Your task to perform on an android device: delete browsing data in the chrome app Image 0: 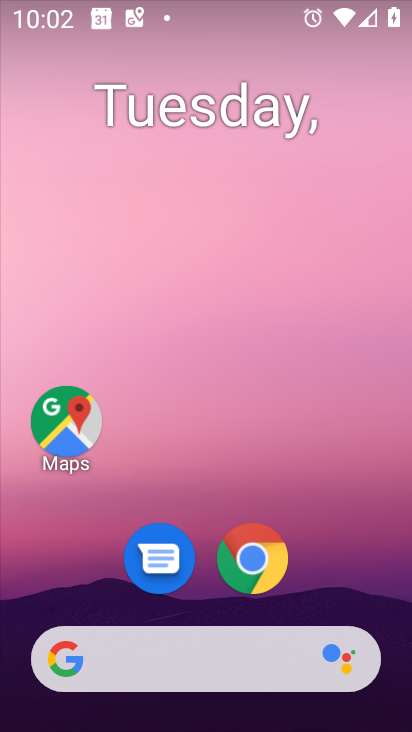
Step 0: click (216, 14)
Your task to perform on an android device: delete browsing data in the chrome app Image 1: 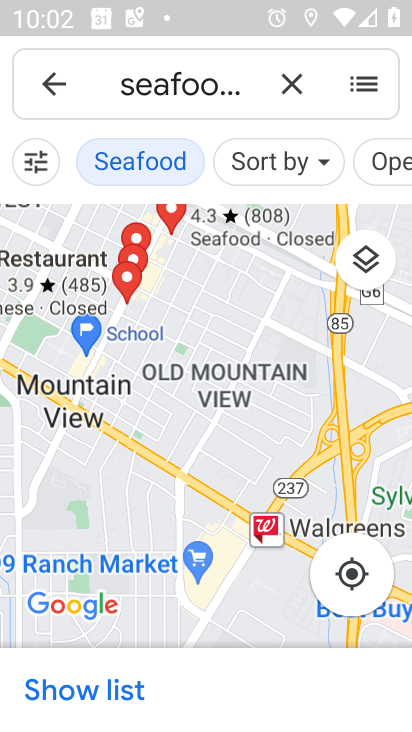
Step 1: press back button
Your task to perform on an android device: delete browsing data in the chrome app Image 2: 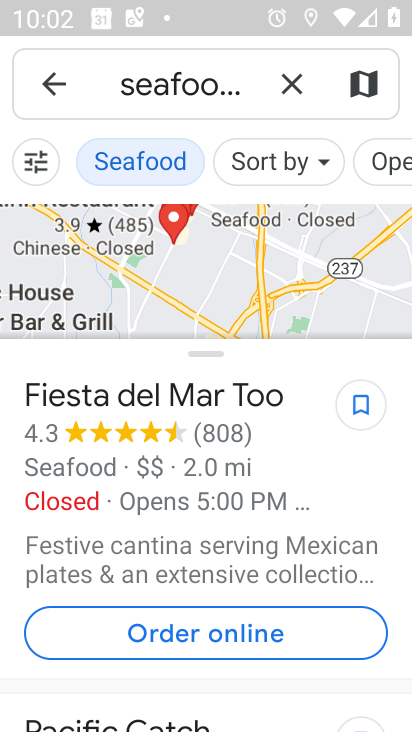
Step 2: press back button
Your task to perform on an android device: delete browsing data in the chrome app Image 3: 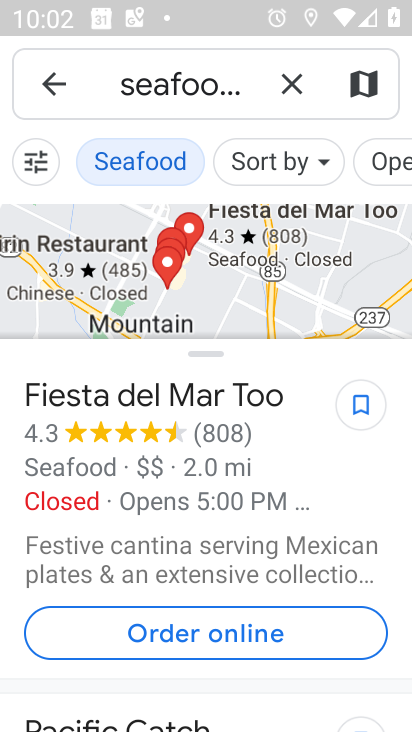
Step 3: press back button
Your task to perform on an android device: delete browsing data in the chrome app Image 4: 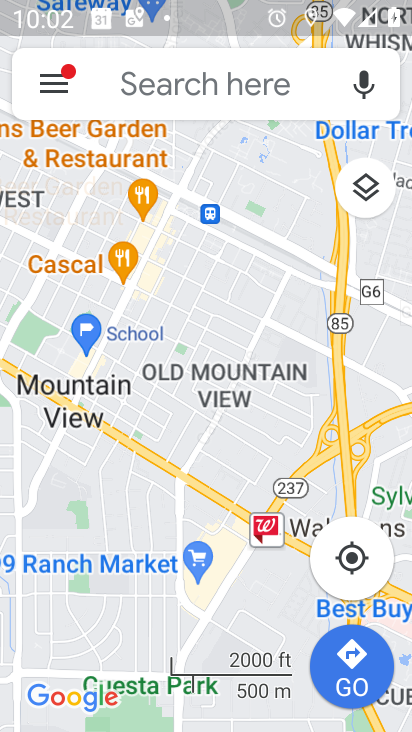
Step 4: press back button
Your task to perform on an android device: delete browsing data in the chrome app Image 5: 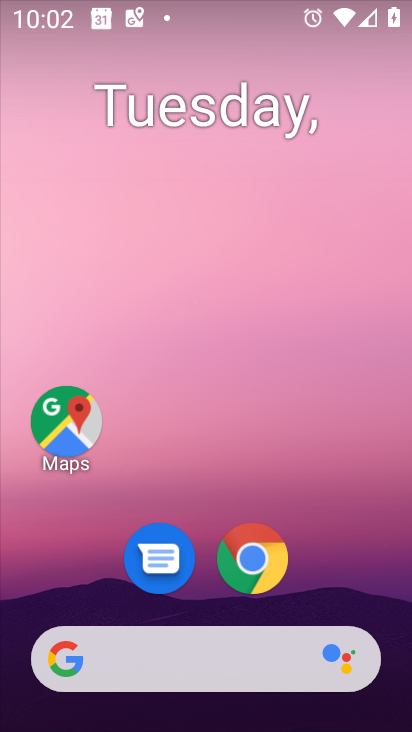
Step 5: drag from (314, 558) to (101, 98)
Your task to perform on an android device: delete browsing data in the chrome app Image 6: 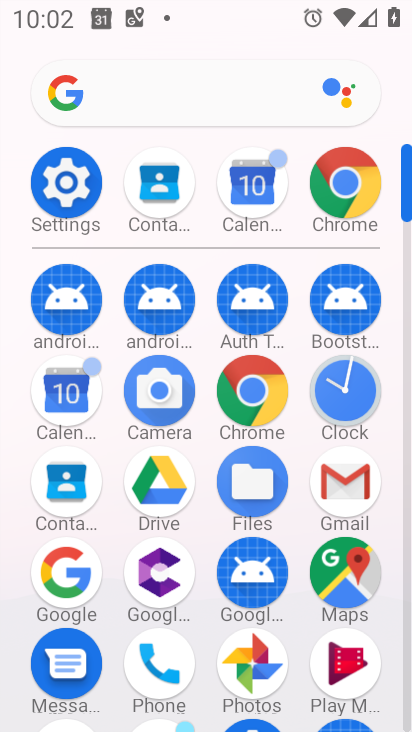
Step 6: click (339, 187)
Your task to perform on an android device: delete browsing data in the chrome app Image 7: 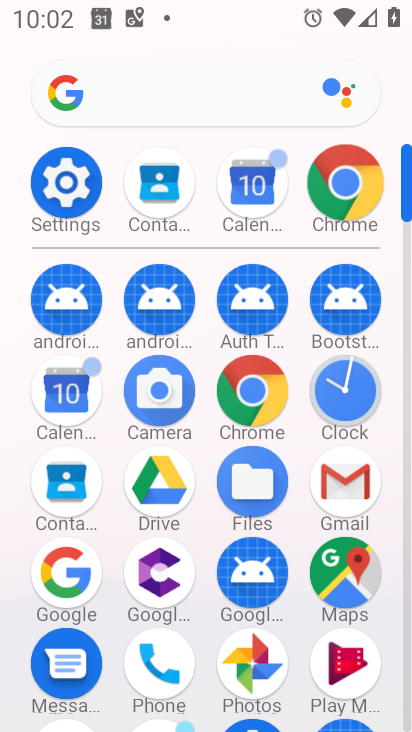
Step 7: click (339, 187)
Your task to perform on an android device: delete browsing data in the chrome app Image 8: 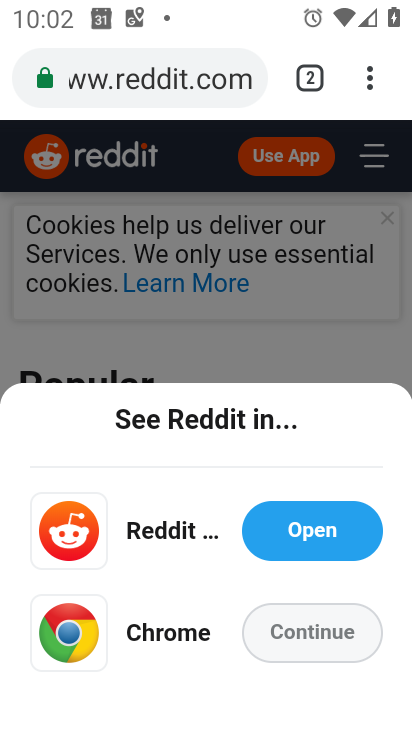
Step 8: drag from (363, 74) to (97, 445)
Your task to perform on an android device: delete browsing data in the chrome app Image 9: 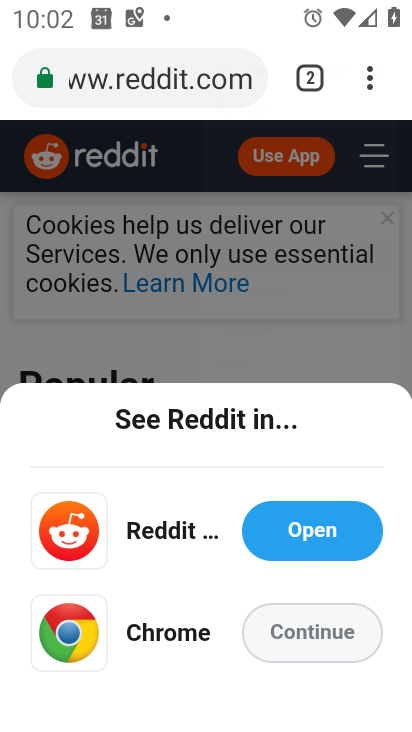
Step 9: click (98, 444)
Your task to perform on an android device: delete browsing data in the chrome app Image 10: 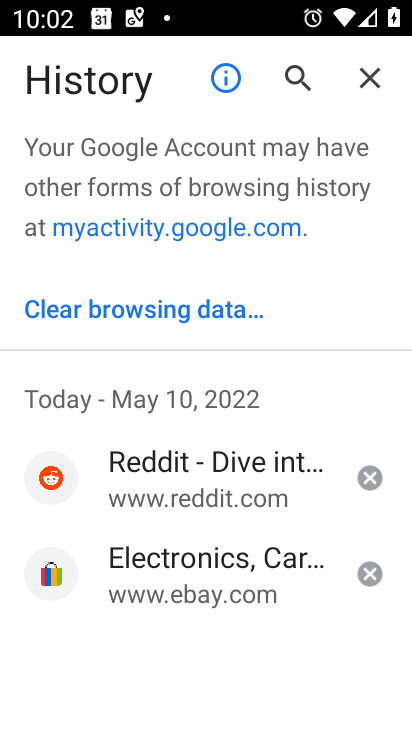
Step 10: click (369, 476)
Your task to perform on an android device: delete browsing data in the chrome app Image 11: 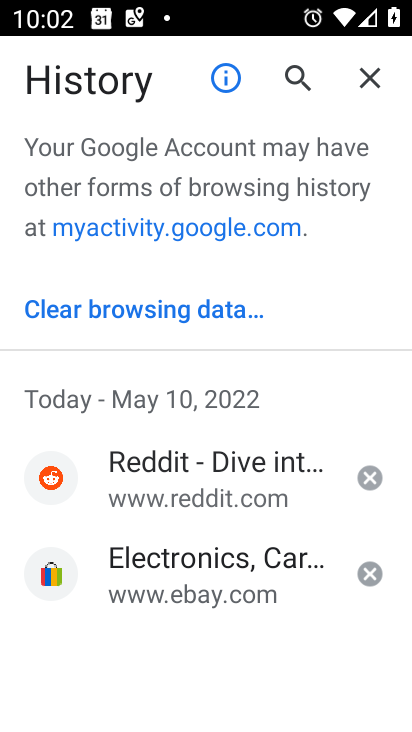
Step 11: click (369, 476)
Your task to perform on an android device: delete browsing data in the chrome app Image 12: 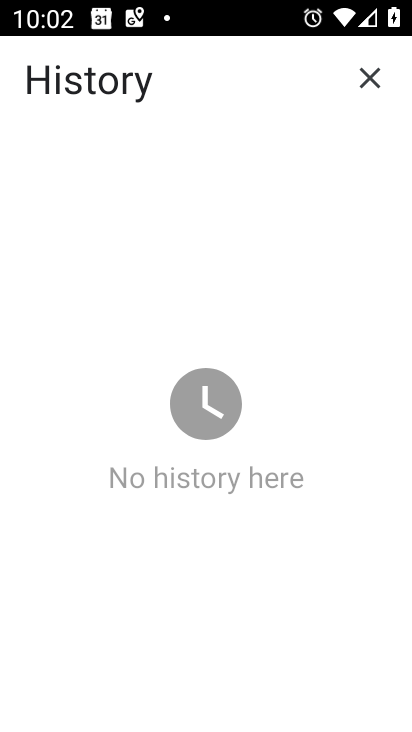
Step 12: task complete